Your task to perform on an android device: open app "Adobe Acrobat Reader" Image 0: 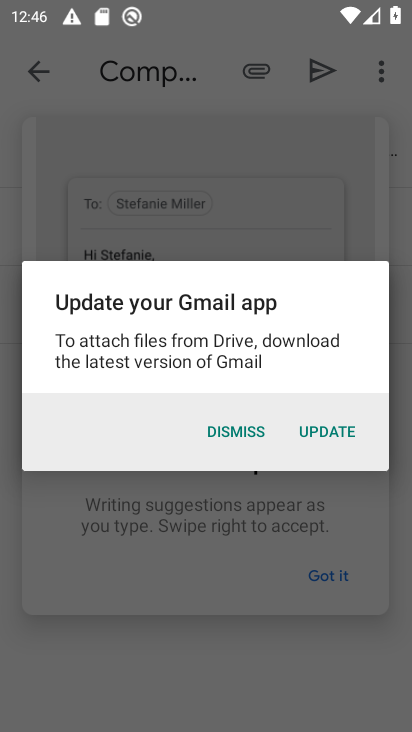
Step 0: press home button
Your task to perform on an android device: open app "Adobe Acrobat Reader" Image 1: 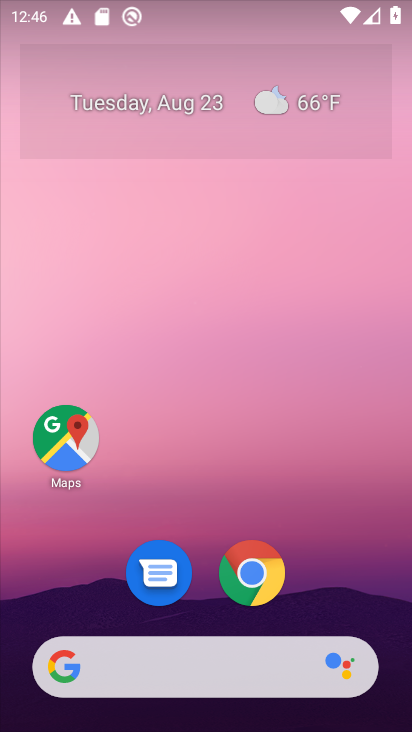
Step 1: drag from (217, 499) to (226, 141)
Your task to perform on an android device: open app "Adobe Acrobat Reader" Image 2: 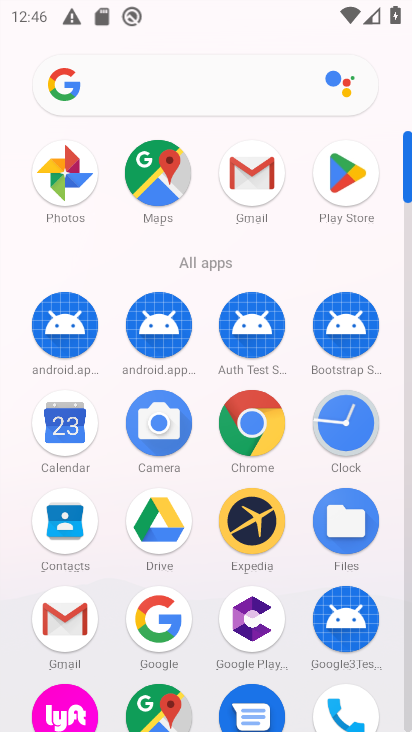
Step 2: click (342, 186)
Your task to perform on an android device: open app "Adobe Acrobat Reader" Image 3: 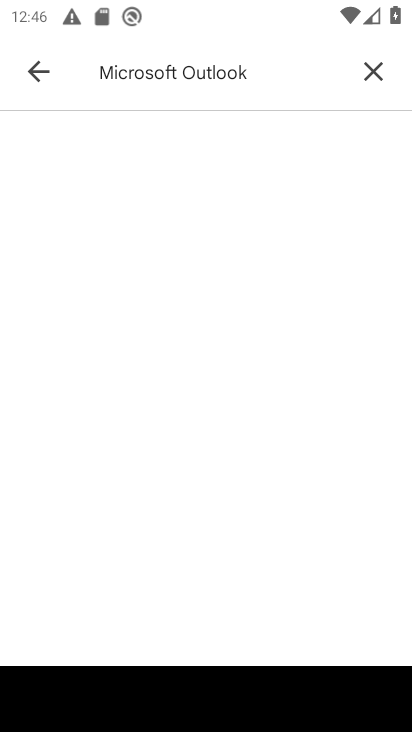
Step 3: click (362, 60)
Your task to perform on an android device: open app "Adobe Acrobat Reader" Image 4: 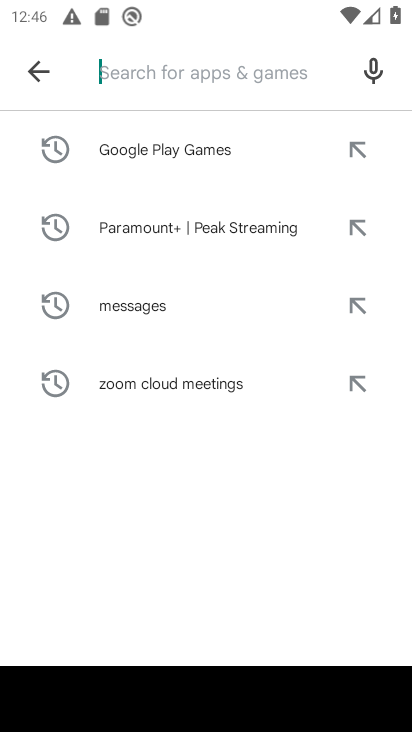
Step 4: type "Adobe Acrobat Reader"
Your task to perform on an android device: open app "Adobe Acrobat Reader" Image 5: 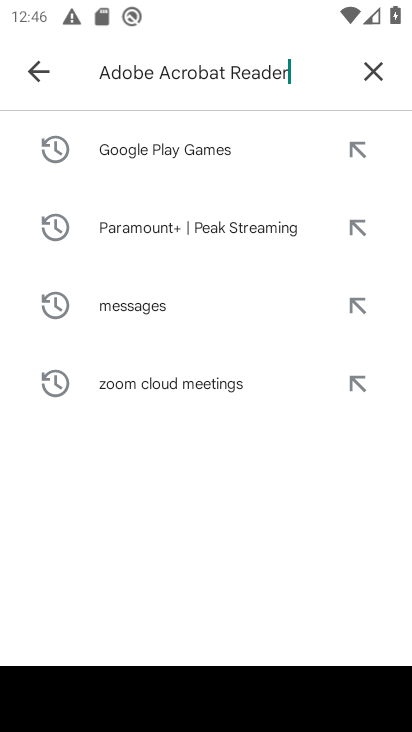
Step 5: type ""
Your task to perform on an android device: open app "Adobe Acrobat Reader" Image 6: 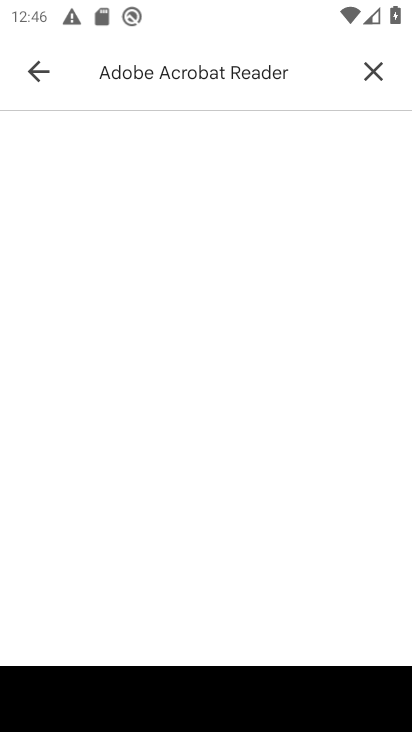
Step 6: task complete